Your task to perform on an android device: Open calendar and show me the third week of next month Image 0: 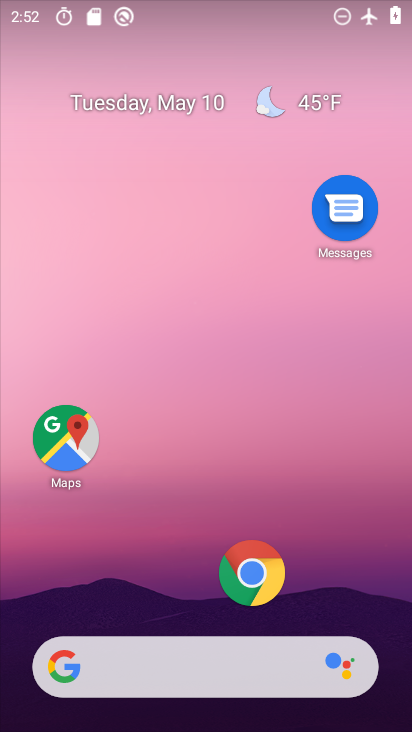
Step 0: drag from (170, 612) to (192, 249)
Your task to perform on an android device: Open calendar and show me the third week of next month Image 1: 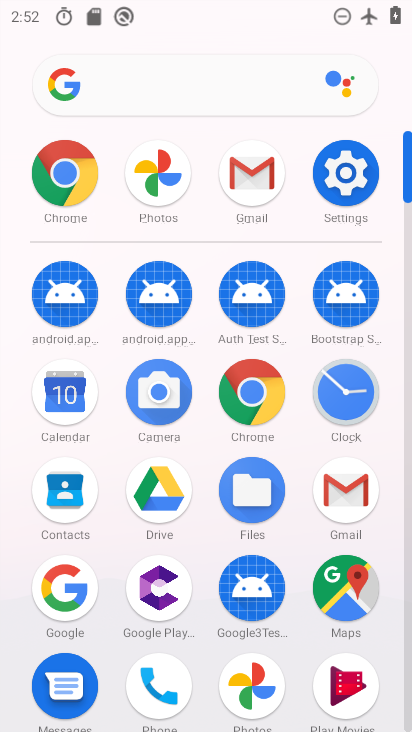
Step 1: drag from (204, 639) to (233, 315)
Your task to perform on an android device: Open calendar and show me the third week of next month Image 2: 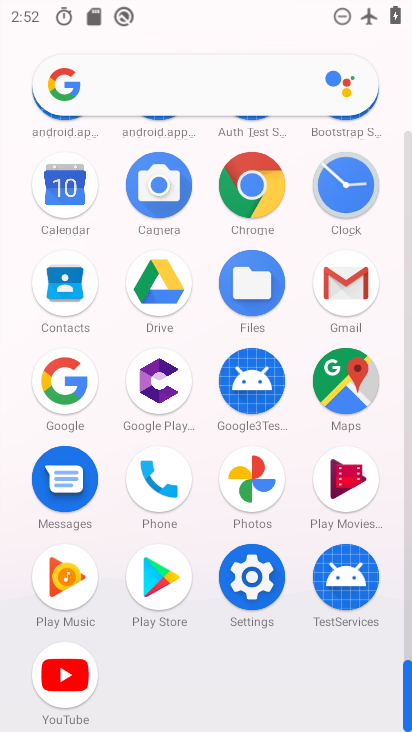
Step 2: click (64, 194)
Your task to perform on an android device: Open calendar and show me the third week of next month Image 3: 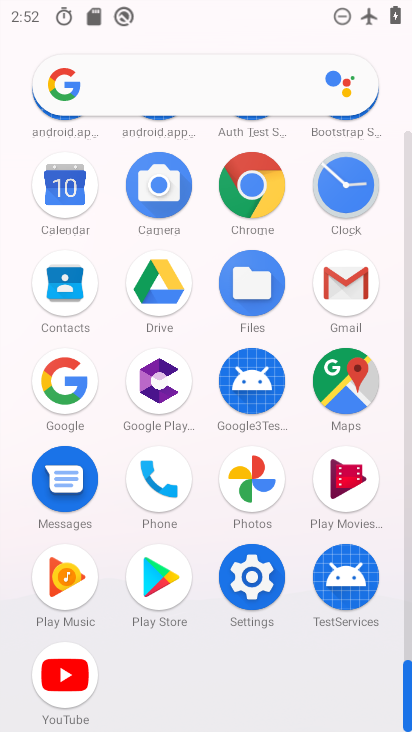
Step 3: click (63, 194)
Your task to perform on an android device: Open calendar and show me the third week of next month Image 4: 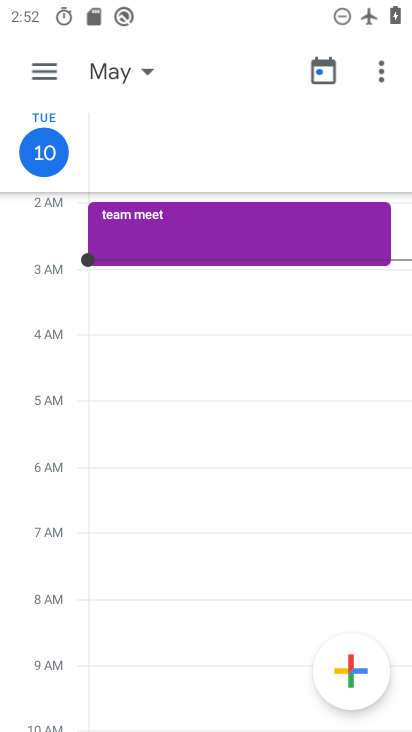
Step 4: drag from (271, 291) to (250, 614)
Your task to perform on an android device: Open calendar and show me the third week of next month Image 5: 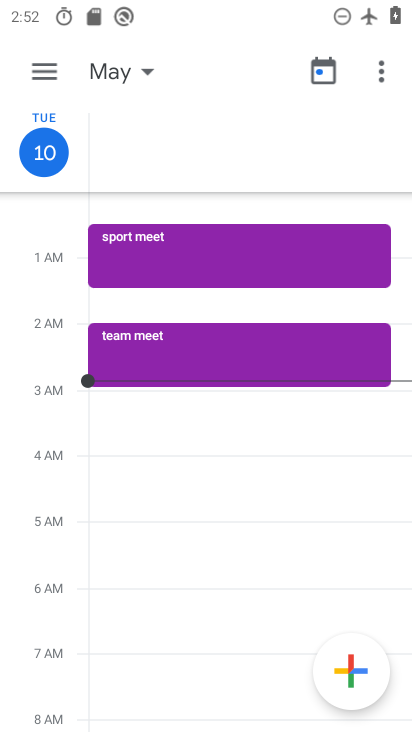
Step 5: click (111, 73)
Your task to perform on an android device: Open calendar and show me the third week of next month Image 6: 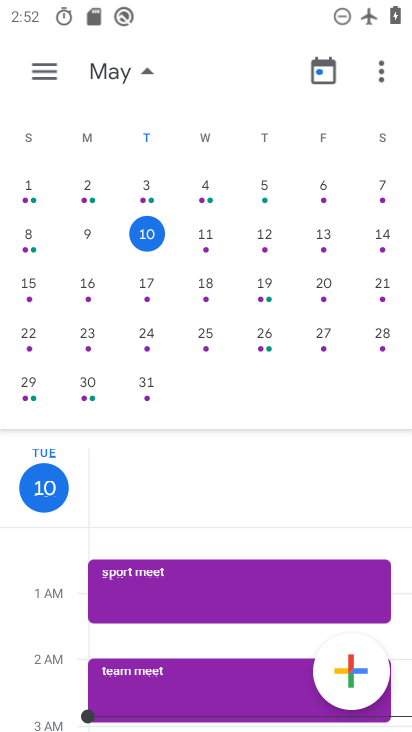
Step 6: drag from (317, 297) to (10, 293)
Your task to perform on an android device: Open calendar and show me the third week of next month Image 7: 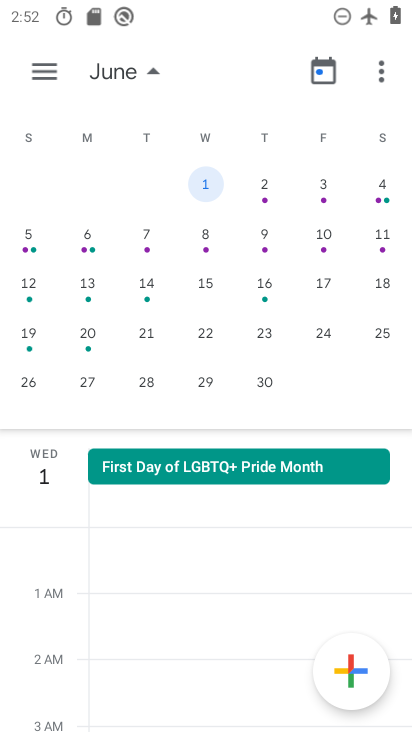
Step 7: click (201, 285)
Your task to perform on an android device: Open calendar and show me the third week of next month Image 8: 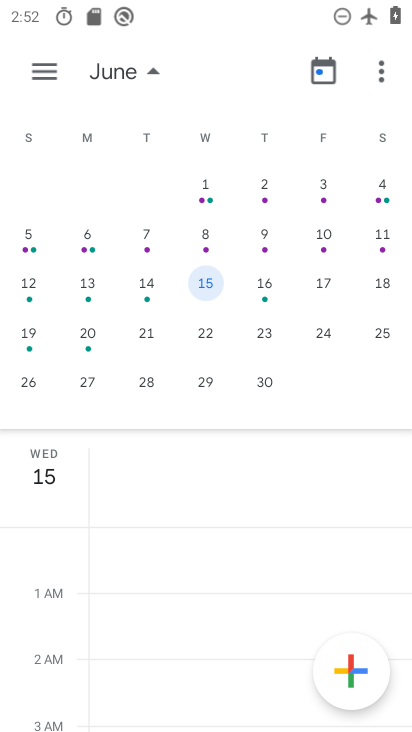
Step 8: click (144, 287)
Your task to perform on an android device: Open calendar and show me the third week of next month Image 9: 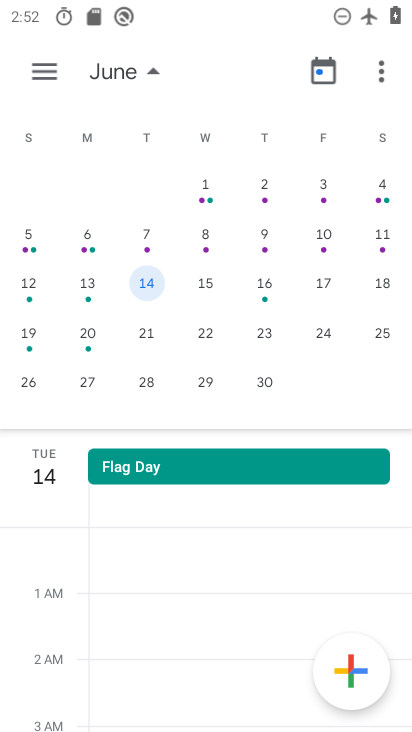
Step 9: task complete